Your task to perform on an android device: turn pop-ups off in chrome Image 0: 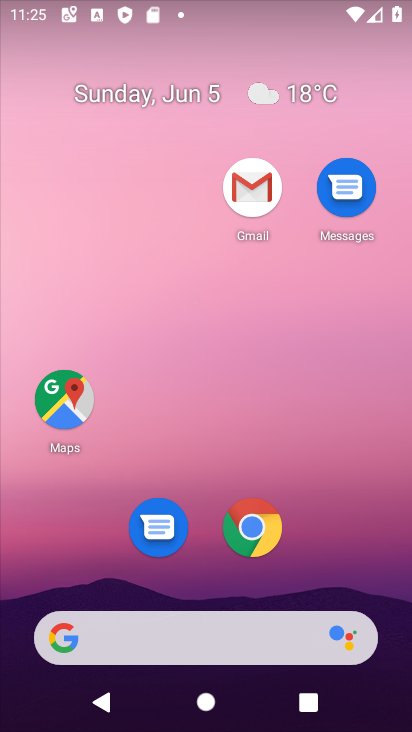
Step 0: click (256, 538)
Your task to perform on an android device: turn pop-ups off in chrome Image 1: 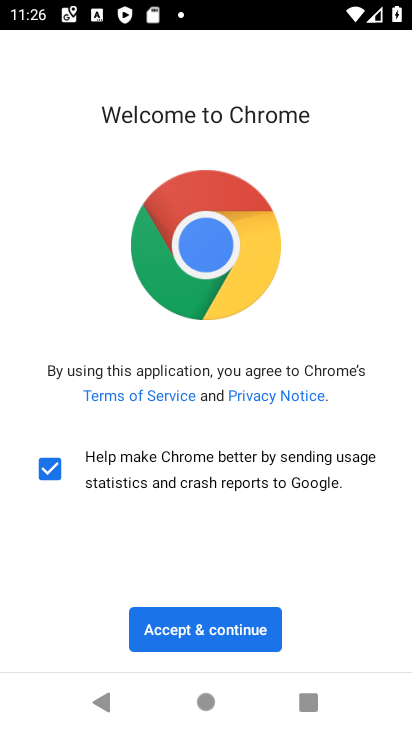
Step 1: click (256, 538)
Your task to perform on an android device: turn pop-ups off in chrome Image 2: 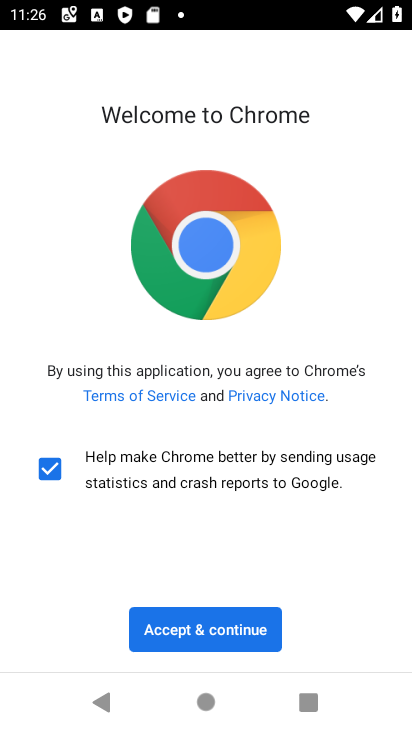
Step 2: click (203, 626)
Your task to perform on an android device: turn pop-ups off in chrome Image 3: 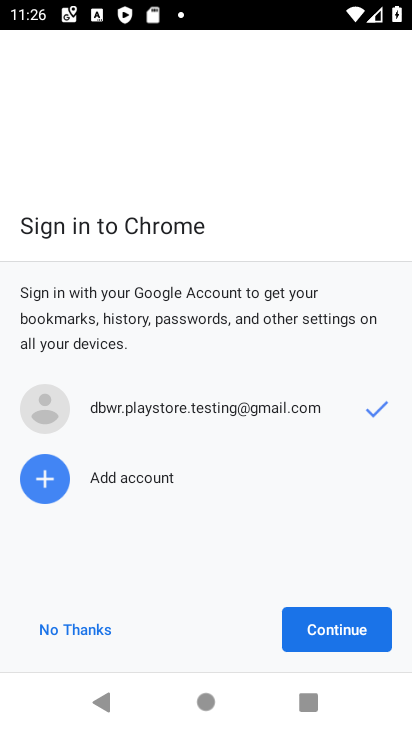
Step 3: click (323, 632)
Your task to perform on an android device: turn pop-ups off in chrome Image 4: 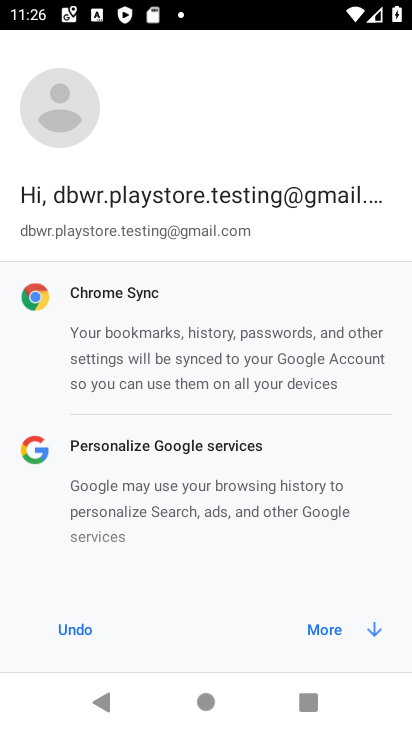
Step 4: click (323, 632)
Your task to perform on an android device: turn pop-ups off in chrome Image 5: 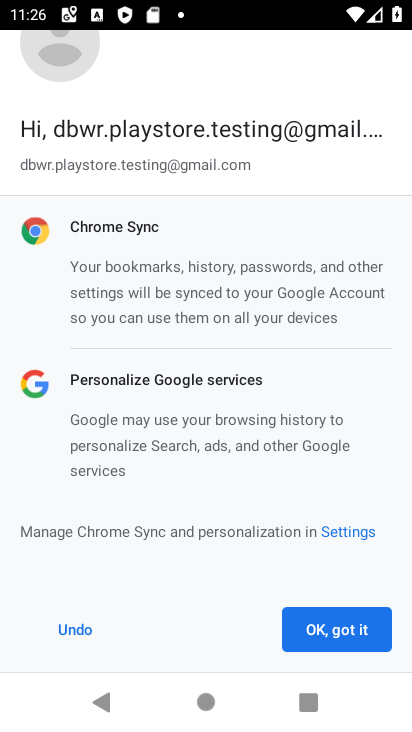
Step 5: click (323, 632)
Your task to perform on an android device: turn pop-ups off in chrome Image 6: 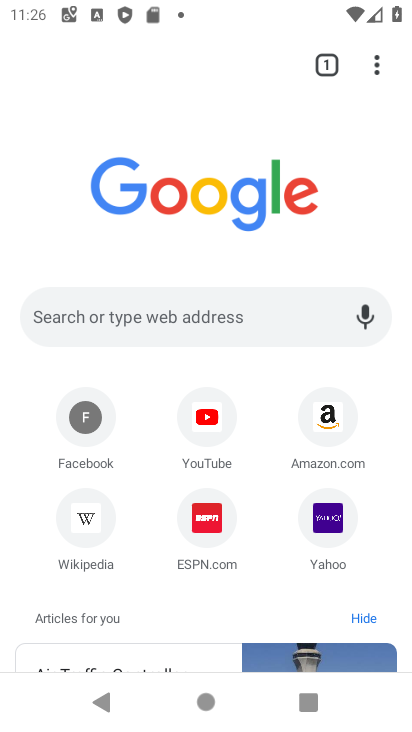
Step 6: click (371, 53)
Your task to perform on an android device: turn pop-ups off in chrome Image 7: 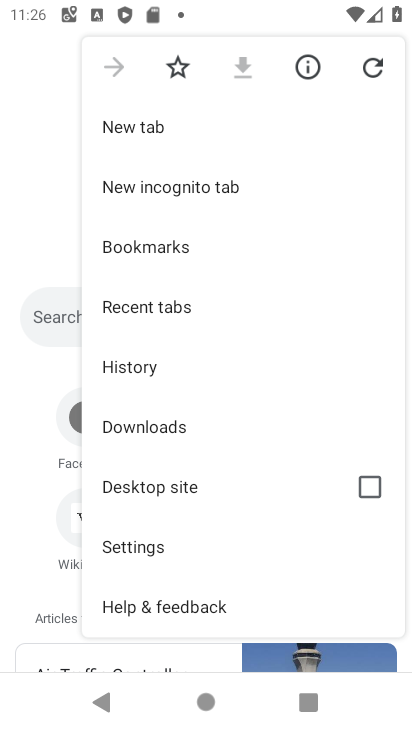
Step 7: click (156, 554)
Your task to perform on an android device: turn pop-ups off in chrome Image 8: 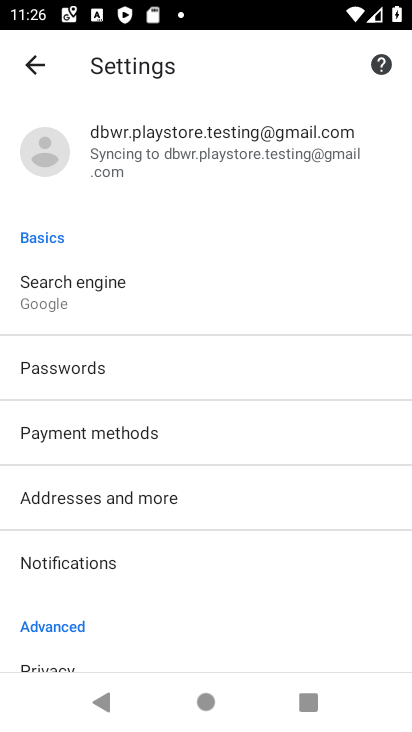
Step 8: drag from (285, 603) to (273, 473)
Your task to perform on an android device: turn pop-ups off in chrome Image 9: 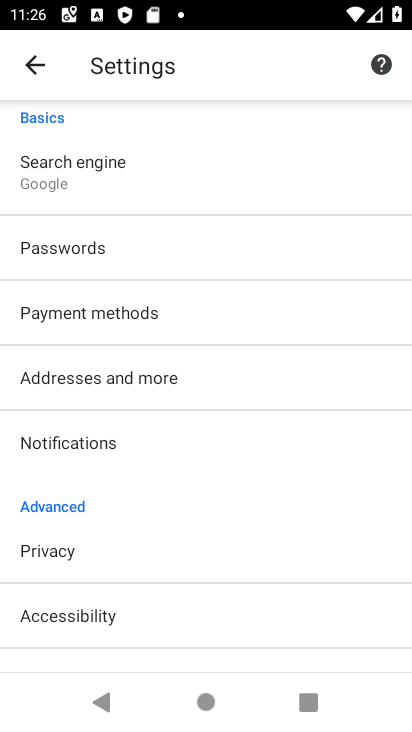
Step 9: drag from (332, 630) to (322, 386)
Your task to perform on an android device: turn pop-ups off in chrome Image 10: 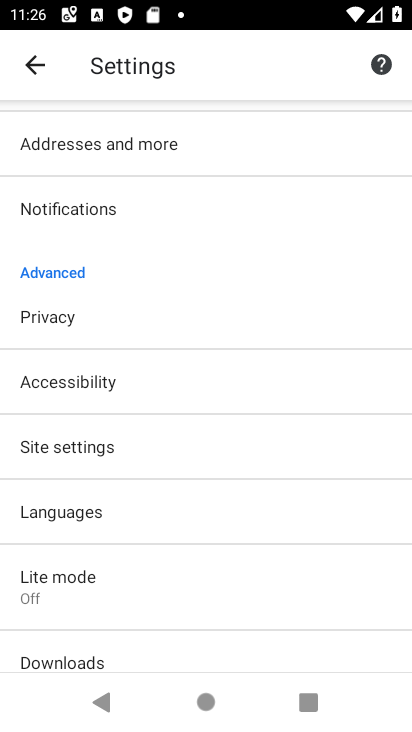
Step 10: click (141, 445)
Your task to perform on an android device: turn pop-ups off in chrome Image 11: 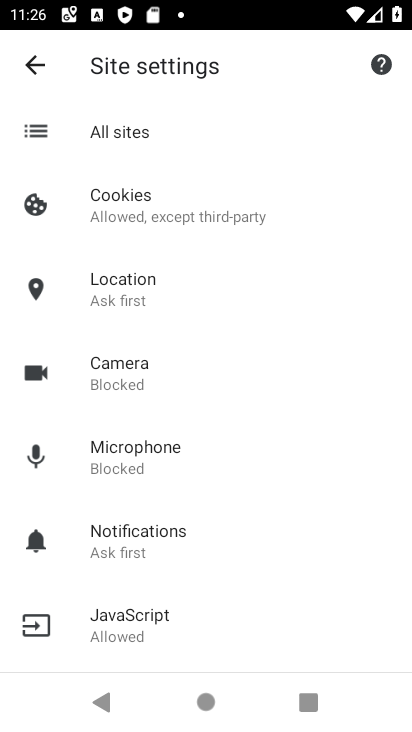
Step 11: drag from (289, 591) to (291, 336)
Your task to perform on an android device: turn pop-ups off in chrome Image 12: 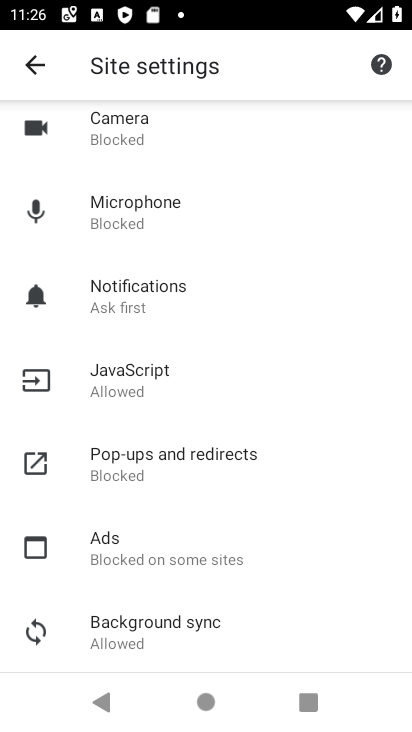
Step 12: click (161, 465)
Your task to perform on an android device: turn pop-ups off in chrome Image 13: 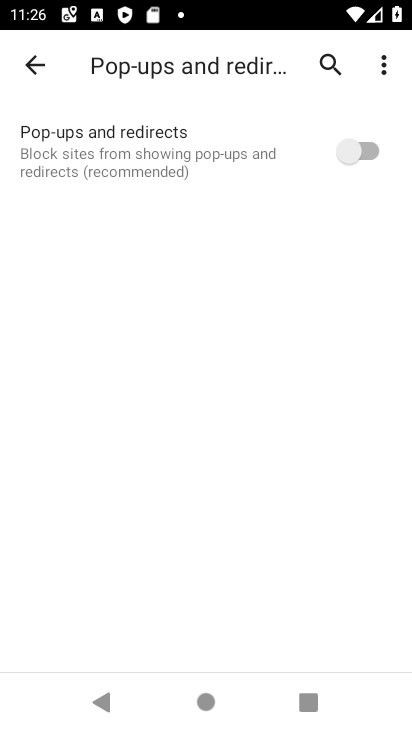
Step 13: click (337, 157)
Your task to perform on an android device: turn pop-ups off in chrome Image 14: 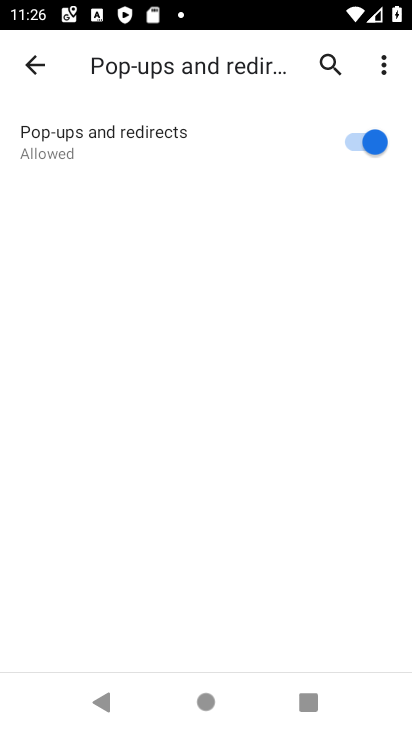
Step 14: click (337, 157)
Your task to perform on an android device: turn pop-ups off in chrome Image 15: 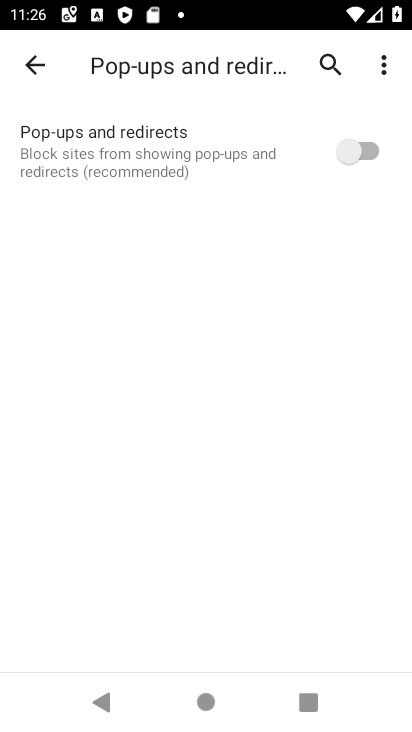
Step 15: task complete